Your task to perform on an android device: Search for Italian restaurants on Maps Image 0: 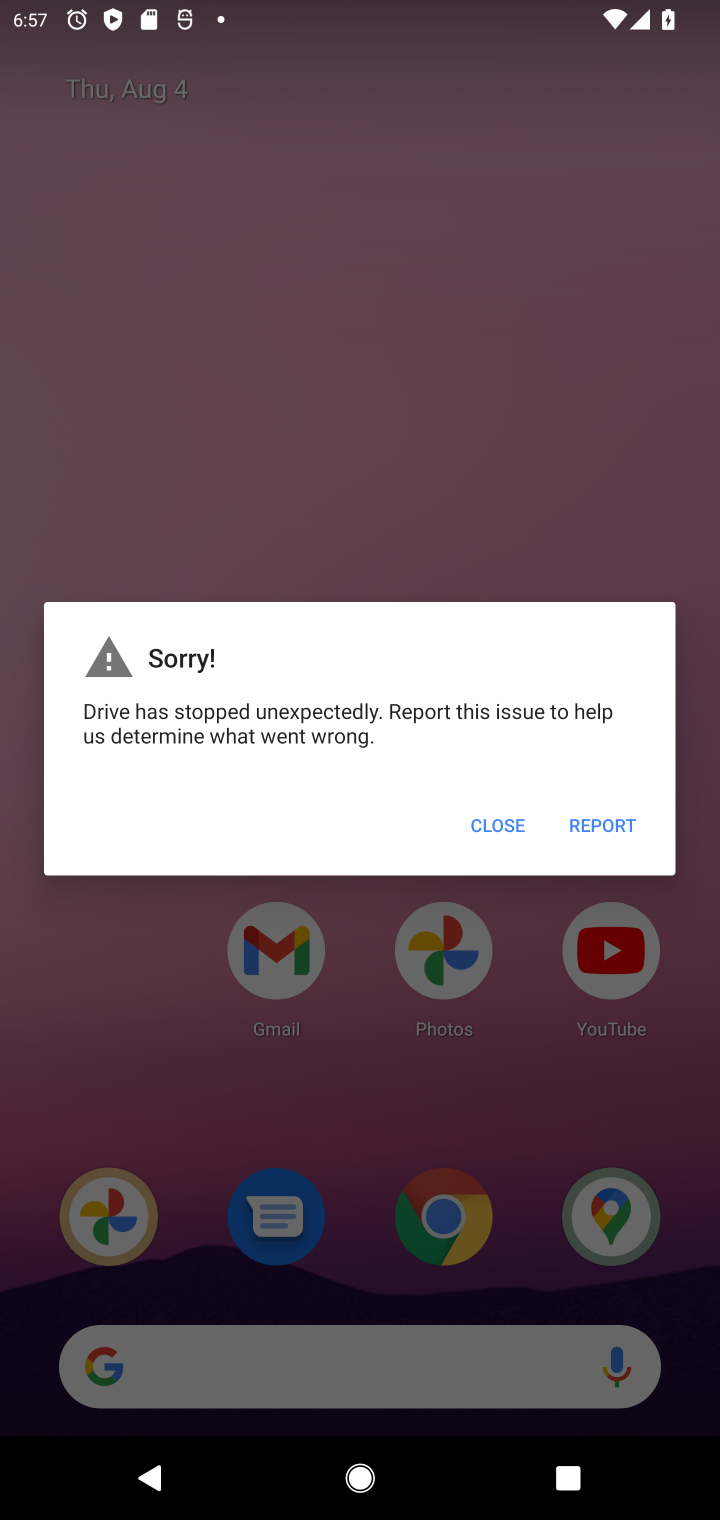
Step 0: click (515, 833)
Your task to perform on an android device: Search for Italian restaurants on Maps Image 1: 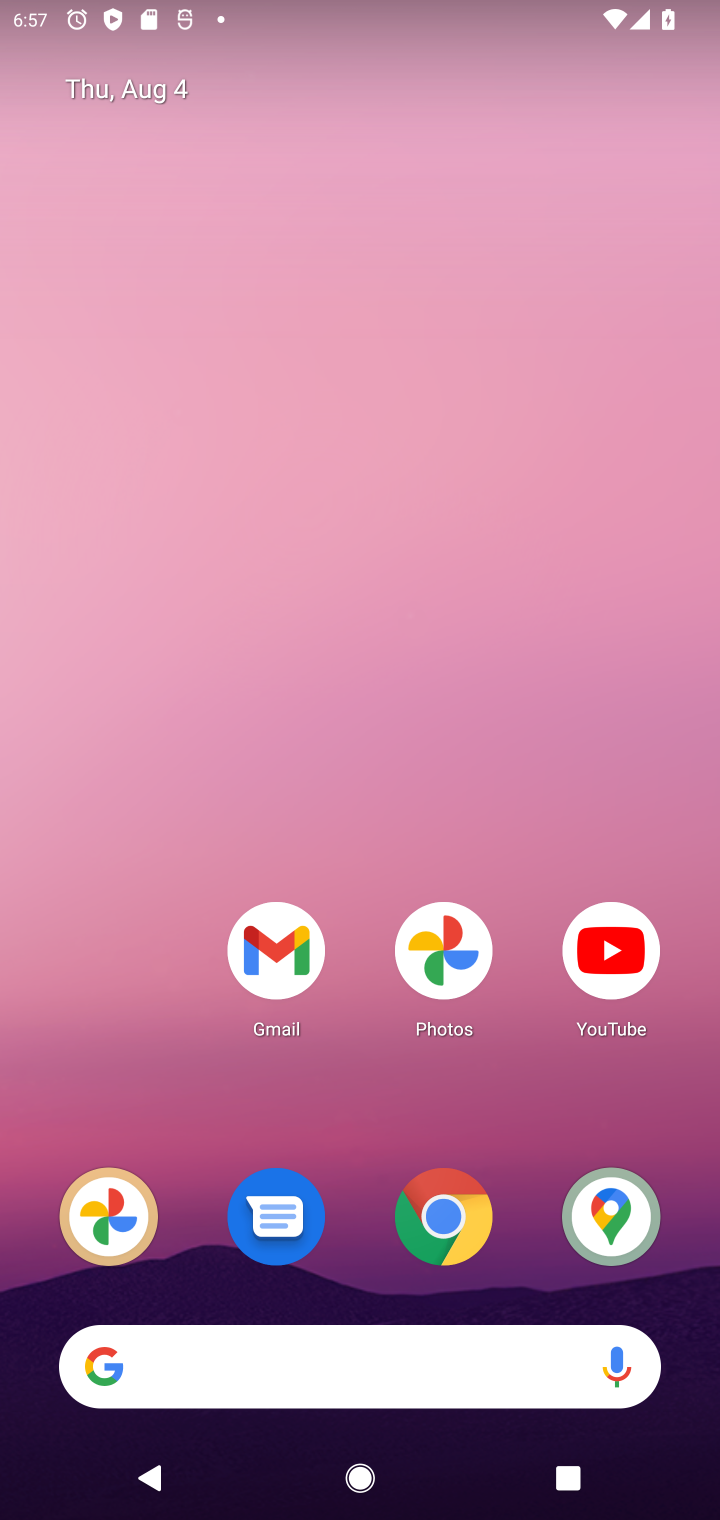
Step 1: click (488, 1094)
Your task to perform on an android device: Search for Italian restaurants on Maps Image 2: 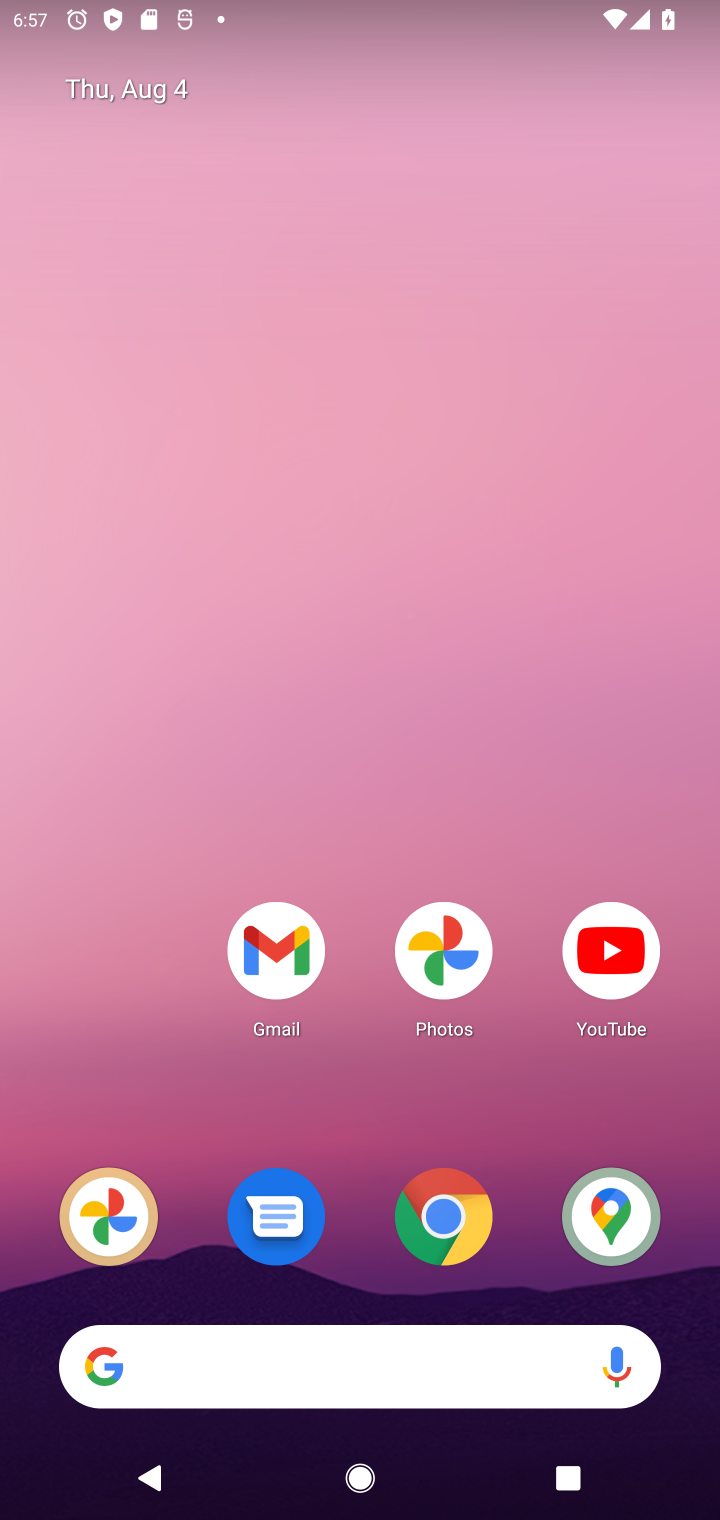
Step 2: click (635, 1199)
Your task to perform on an android device: Search for Italian restaurants on Maps Image 3: 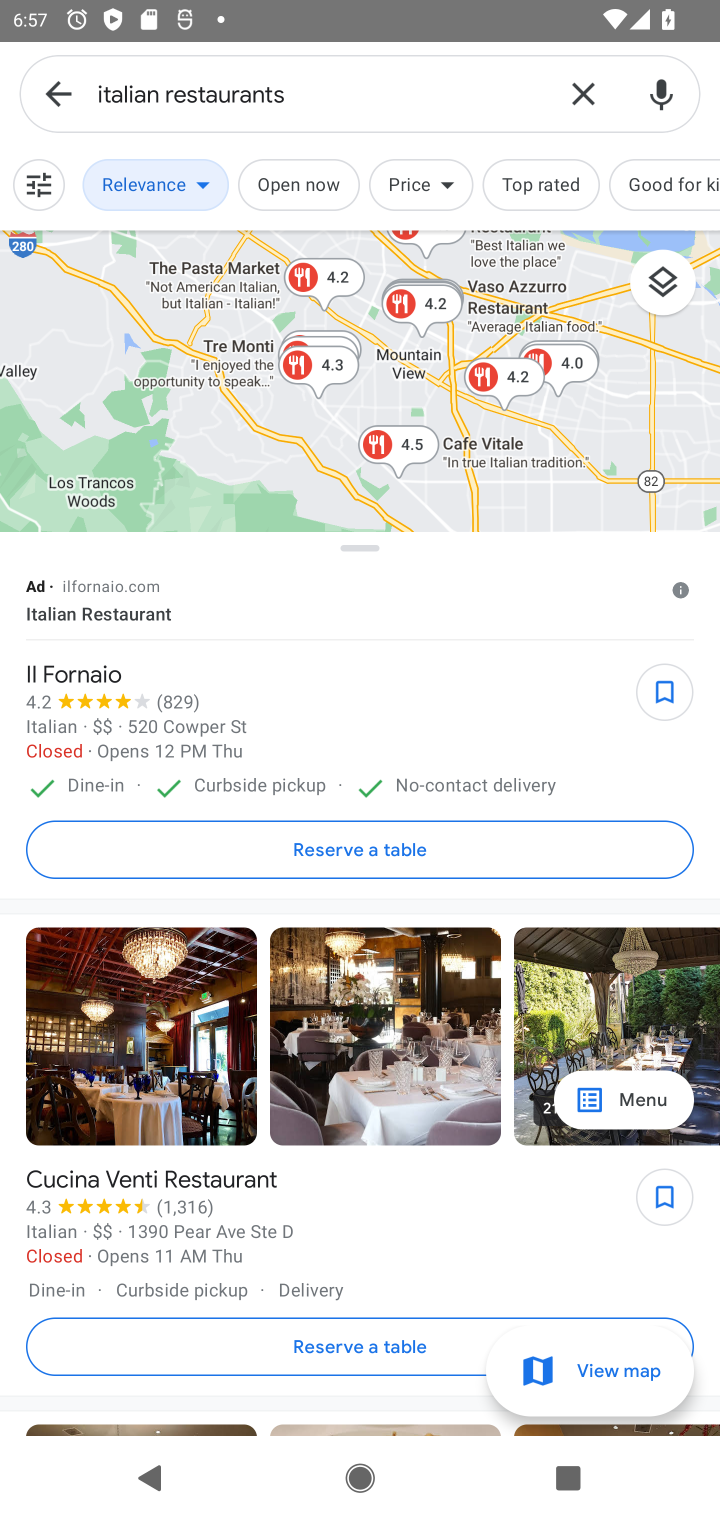
Step 3: task complete